Your task to perform on an android device: find which apps use the phone's location Image 0: 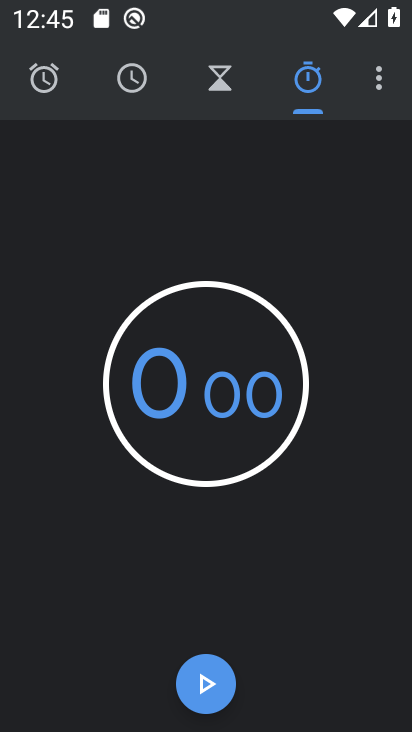
Step 0: press home button
Your task to perform on an android device: find which apps use the phone's location Image 1: 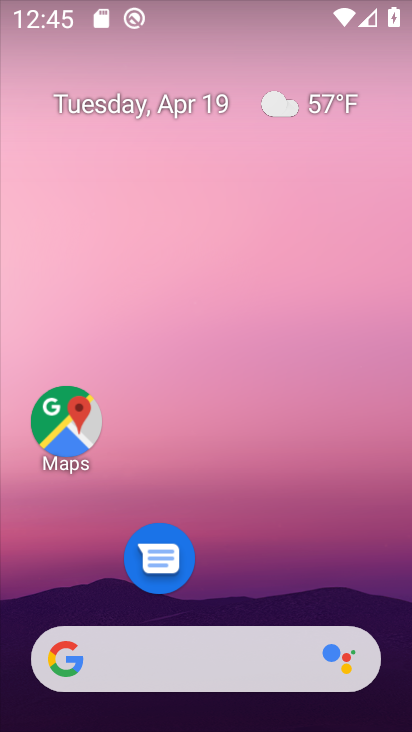
Step 1: drag from (270, 596) to (219, 57)
Your task to perform on an android device: find which apps use the phone's location Image 2: 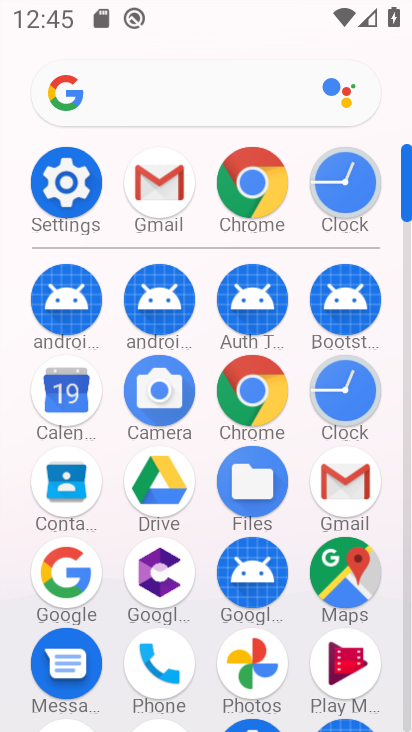
Step 2: click (70, 227)
Your task to perform on an android device: find which apps use the phone's location Image 3: 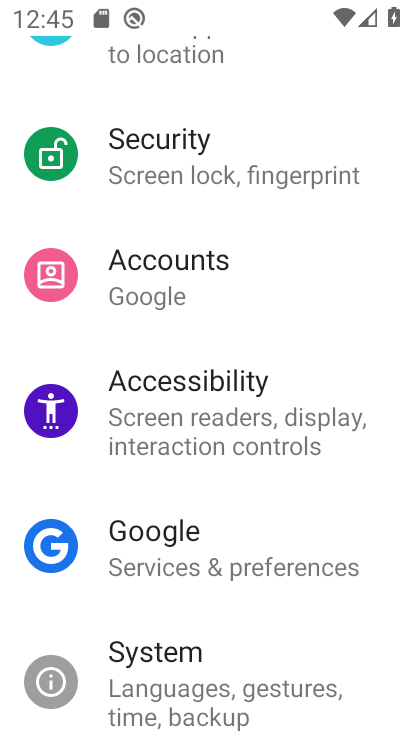
Step 3: click (160, 61)
Your task to perform on an android device: find which apps use the phone's location Image 4: 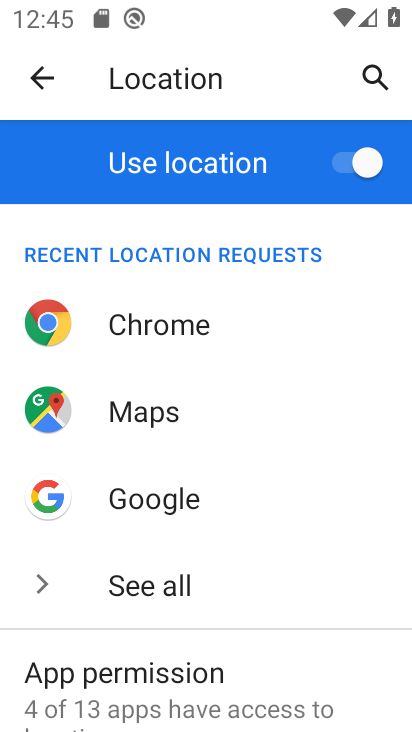
Step 4: click (69, 709)
Your task to perform on an android device: find which apps use the phone's location Image 5: 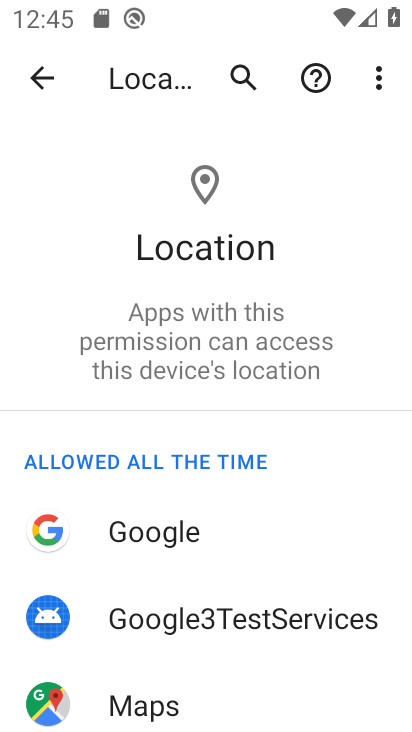
Step 5: task complete